Your task to perform on an android device: clear all cookies in the chrome app Image 0: 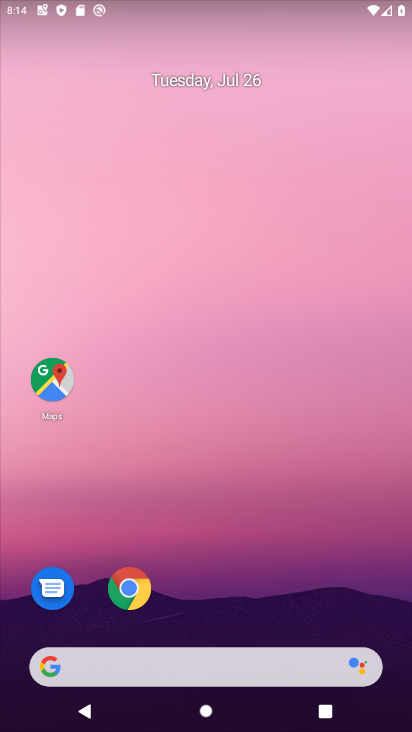
Step 0: click (136, 591)
Your task to perform on an android device: clear all cookies in the chrome app Image 1: 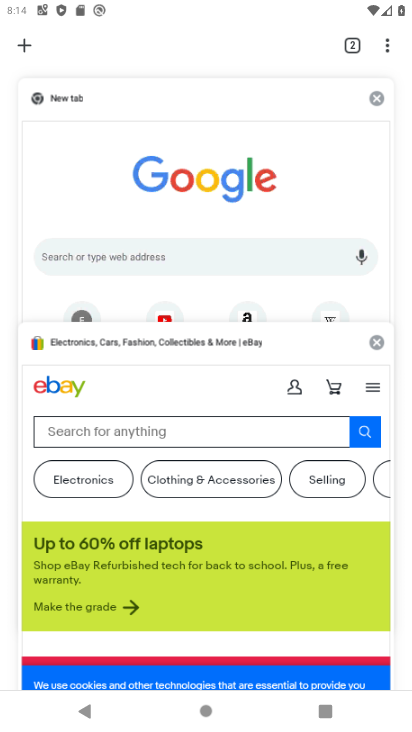
Step 1: click (390, 47)
Your task to perform on an android device: clear all cookies in the chrome app Image 2: 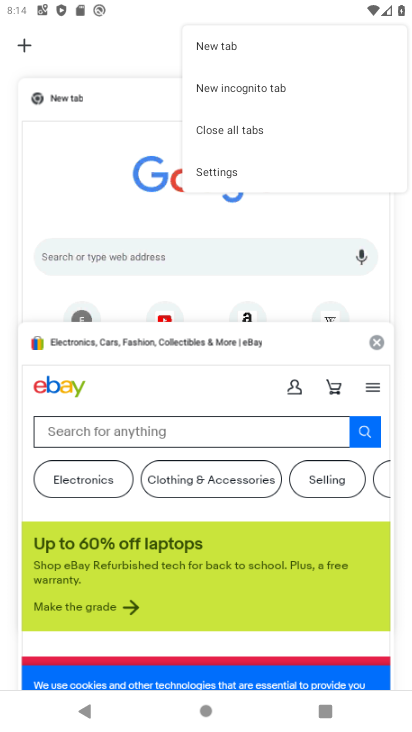
Step 2: click (223, 175)
Your task to perform on an android device: clear all cookies in the chrome app Image 3: 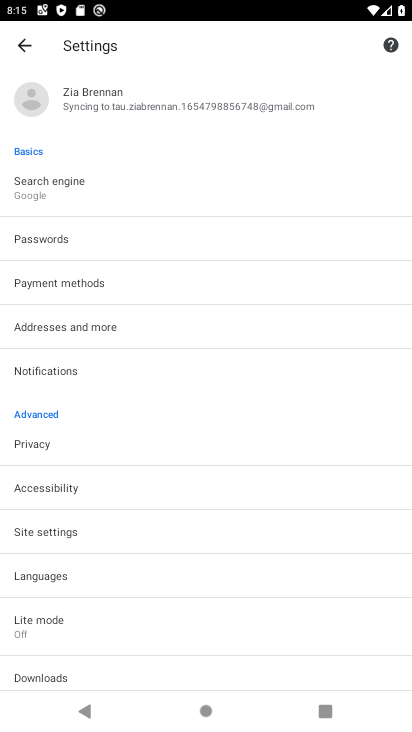
Step 3: click (46, 531)
Your task to perform on an android device: clear all cookies in the chrome app Image 4: 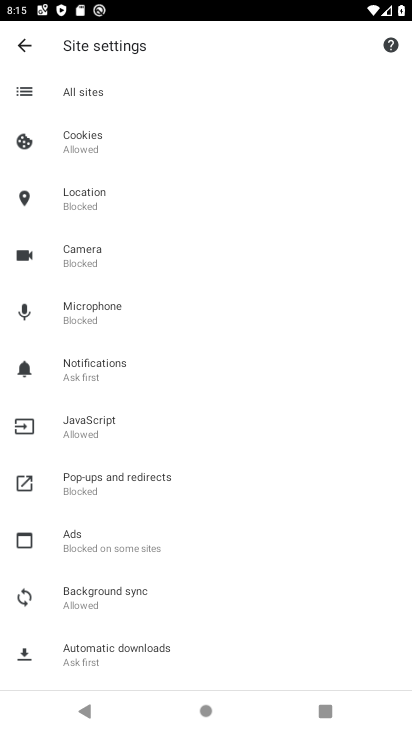
Step 4: click (88, 144)
Your task to perform on an android device: clear all cookies in the chrome app Image 5: 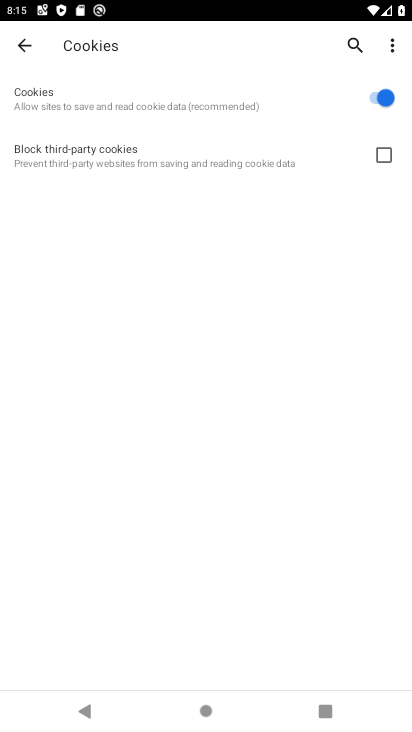
Step 5: click (25, 52)
Your task to perform on an android device: clear all cookies in the chrome app Image 6: 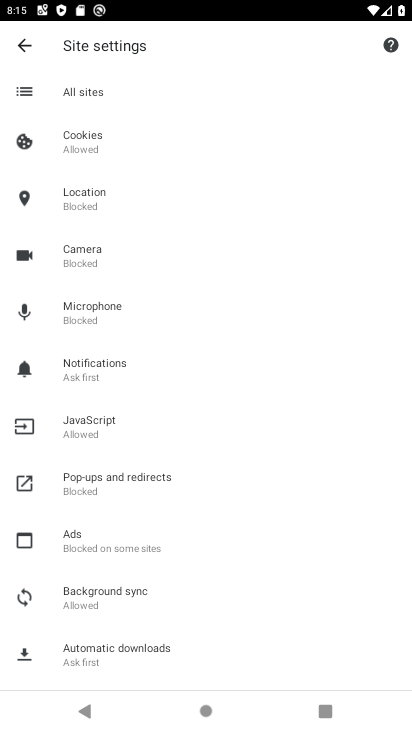
Step 6: click (20, 37)
Your task to perform on an android device: clear all cookies in the chrome app Image 7: 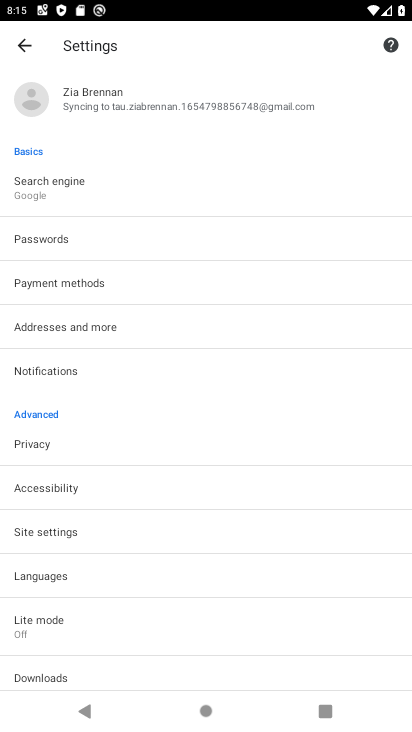
Step 7: click (26, 44)
Your task to perform on an android device: clear all cookies in the chrome app Image 8: 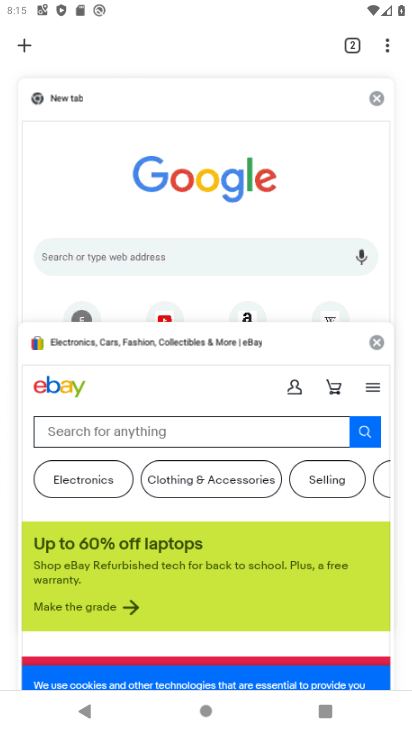
Step 8: click (385, 42)
Your task to perform on an android device: clear all cookies in the chrome app Image 9: 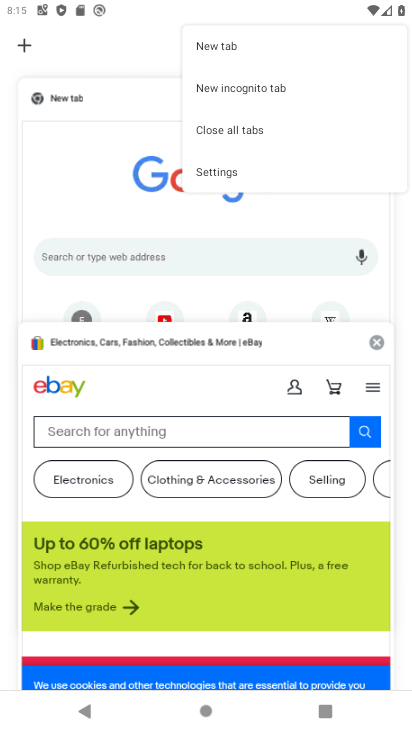
Step 9: click (248, 130)
Your task to perform on an android device: clear all cookies in the chrome app Image 10: 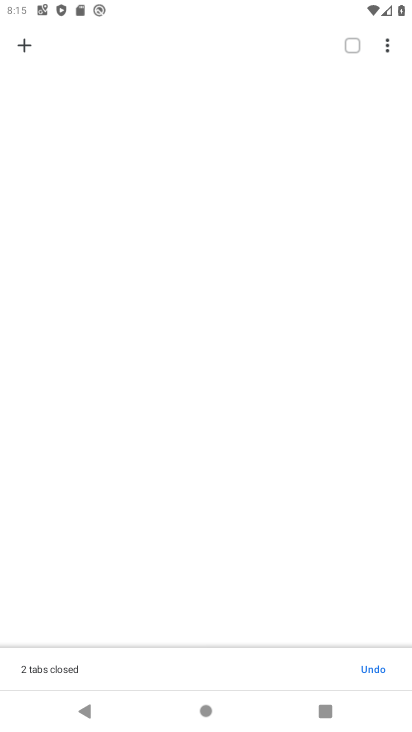
Step 10: click (385, 43)
Your task to perform on an android device: clear all cookies in the chrome app Image 11: 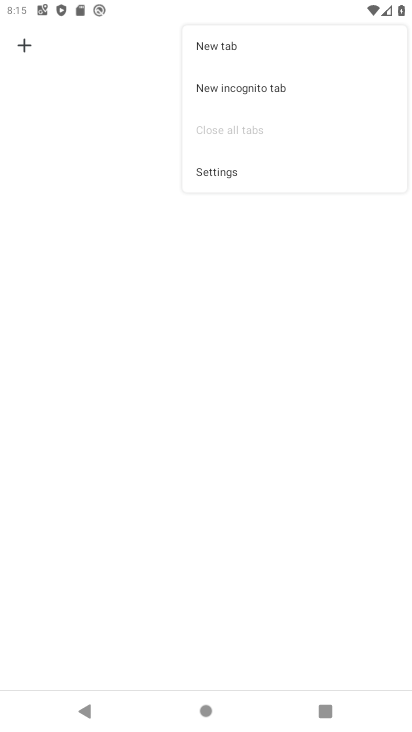
Step 11: click (228, 168)
Your task to perform on an android device: clear all cookies in the chrome app Image 12: 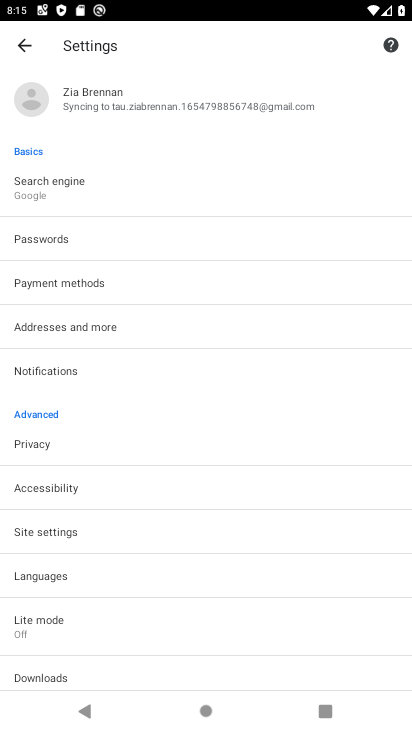
Step 12: drag from (148, 489) to (173, 329)
Your task to perform on an android device: clear all cookies in the chrome app Image 13: 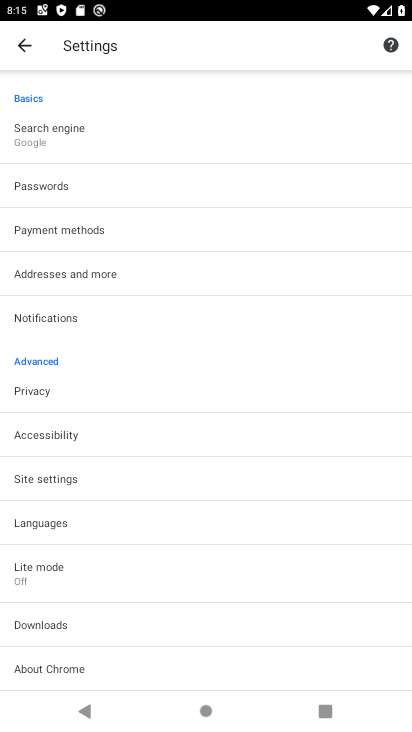
Step 13: drag from (139, 505) to (155, 368)
Your task to perform on an android device: clear all cookies in the chrome app Image 14: 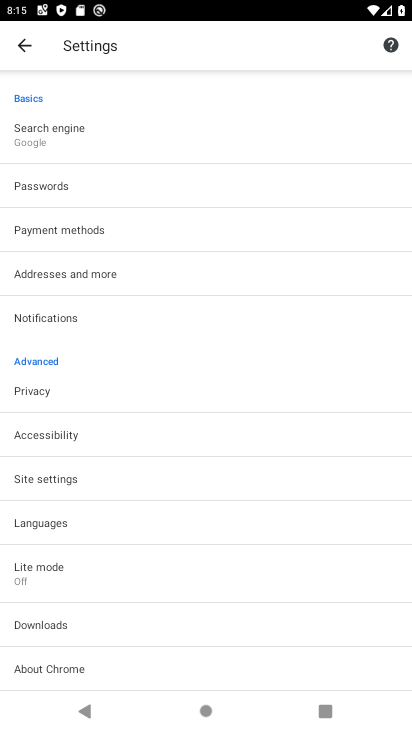
Step 14: click (19, 60)
Your task to perform on an android device: clear all cookies in the chrome app Image 15: 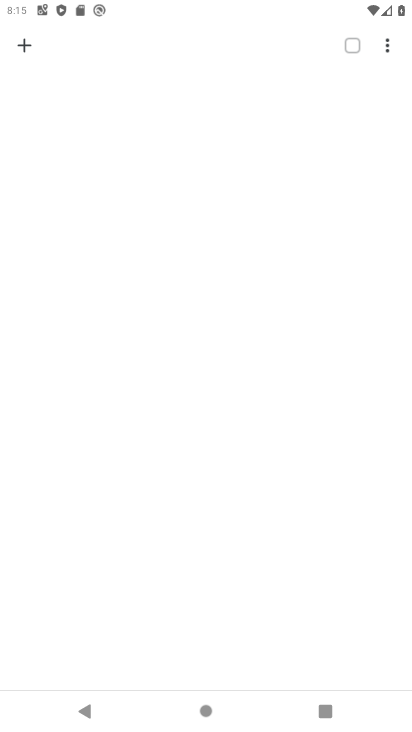
Step 15: click (19, 51)
Your task to perform on an android device: clear all cookies in the chrome app Image 16: 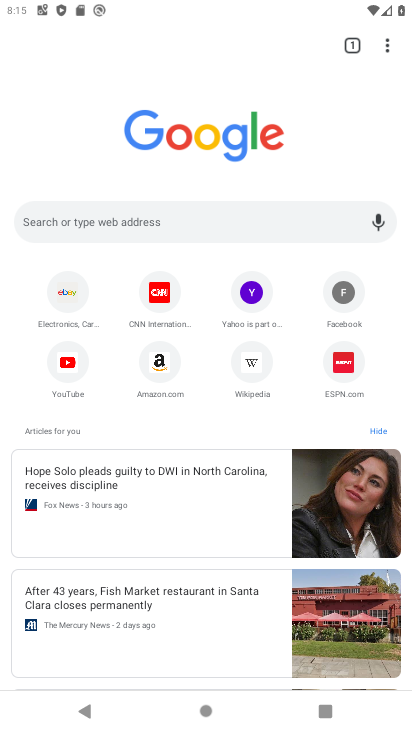
Step 16: click (388, 40)
Your task to perform on an android device: clear all cookies in the chrome app Image 17: 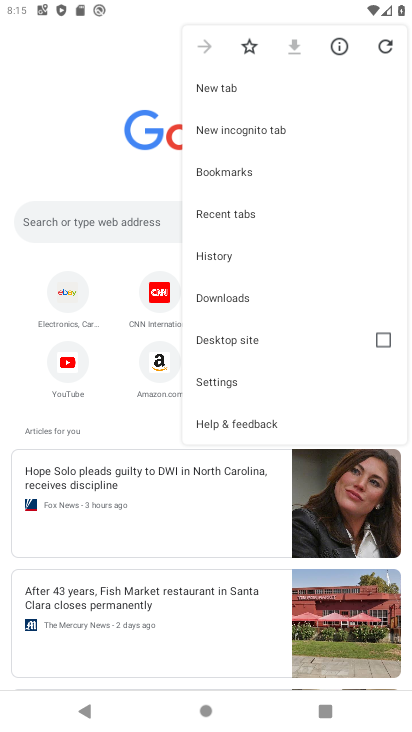
Step 17: click (228, 264)
Your task to perform on an android device: clear all cookies in the chrome app Image 18: 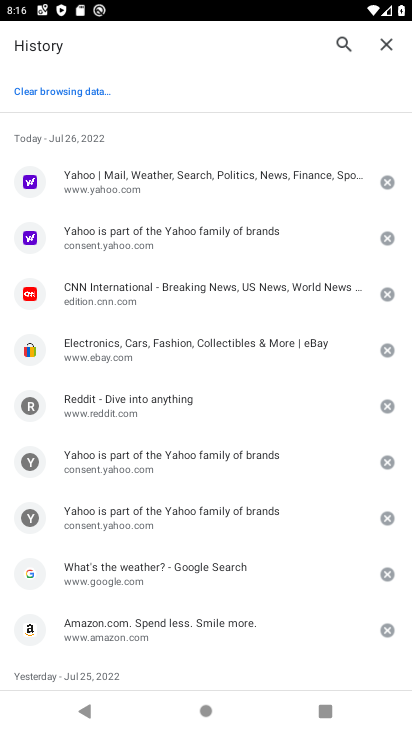
Step 18: click (60, 91)
Your task to perform on an android device: clear all cookies in the chrome app Image 19: 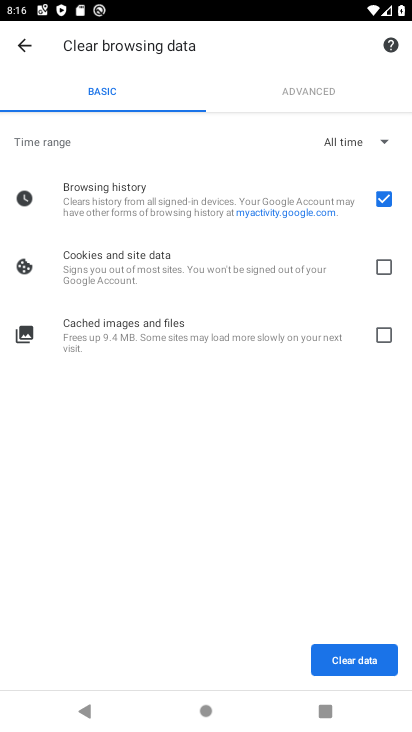
Step 19: click (382, 271)
Your task to perform on an android device: clear all cookies in the chrome app Image 20: 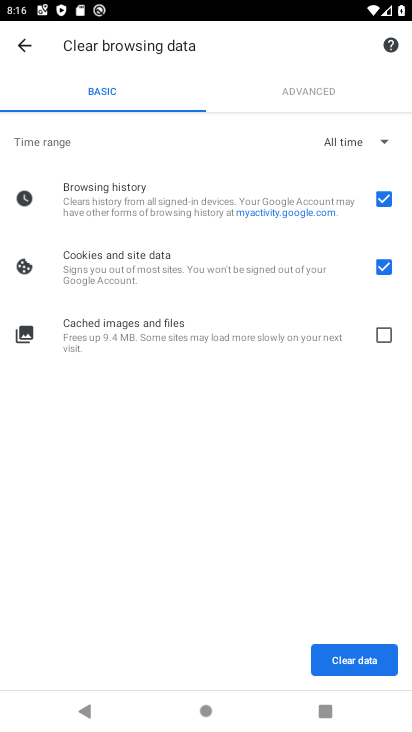
Step 20: click (381, 194)
Your task to perform on an android device: clear all cookies in the chrome app Image 21: 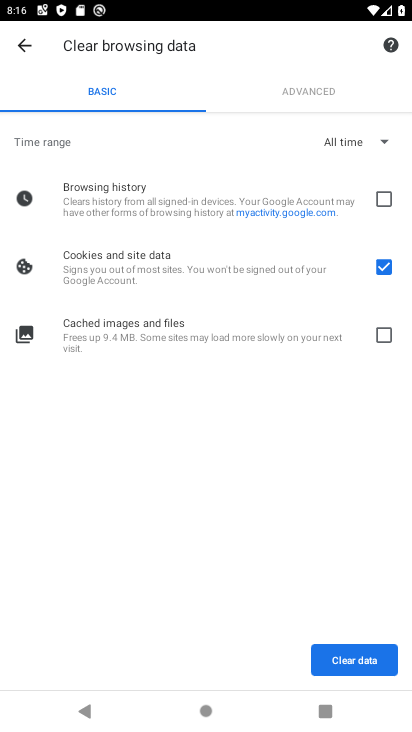
Step 21: click (343, 662)
Your task to perform on an android device: clear all cookies in the chrome app Image 22: 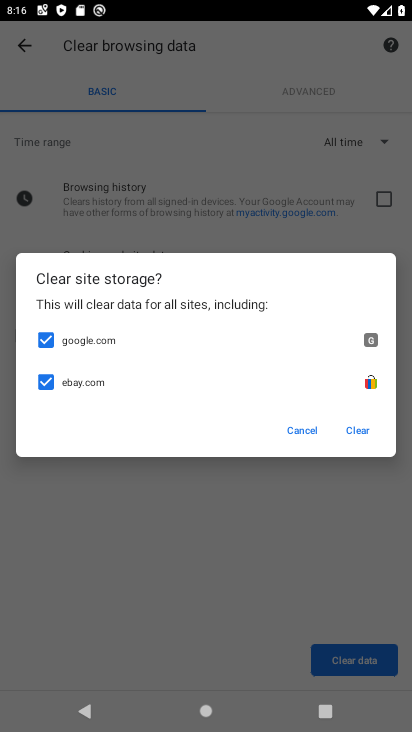
Step 22: click (347, 663)
Your task to perform on an android device: clear all cookies in the chrome app Image 23: 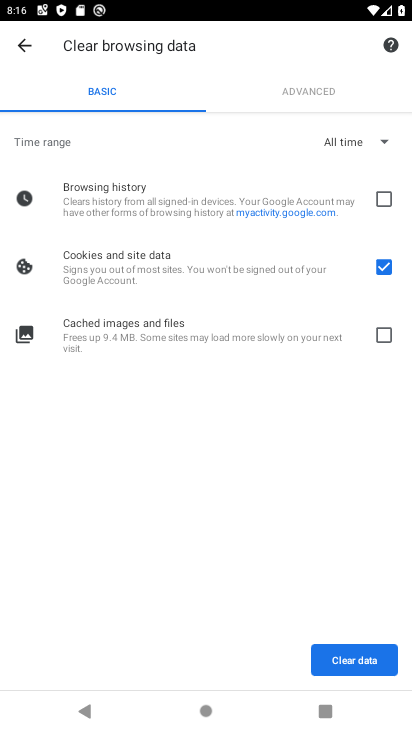
Step 23: click (342, 654)
Your task to perform on an android device: clear all cookies in the chrome app Image 24: 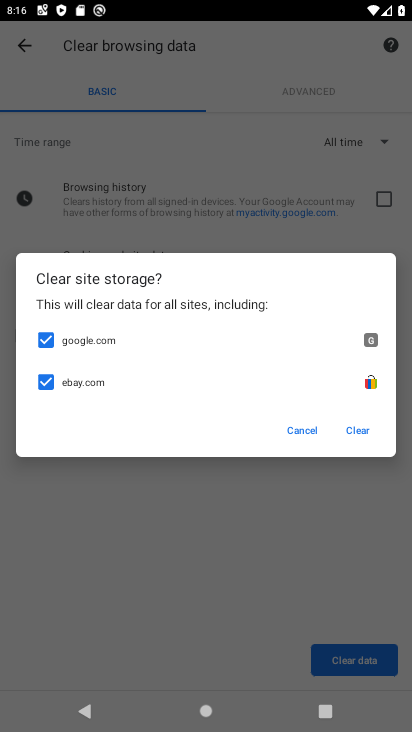
Step 24: click (362, 429)
Your task to perform on an android device: clear all cookies in the chrome app Image 25: 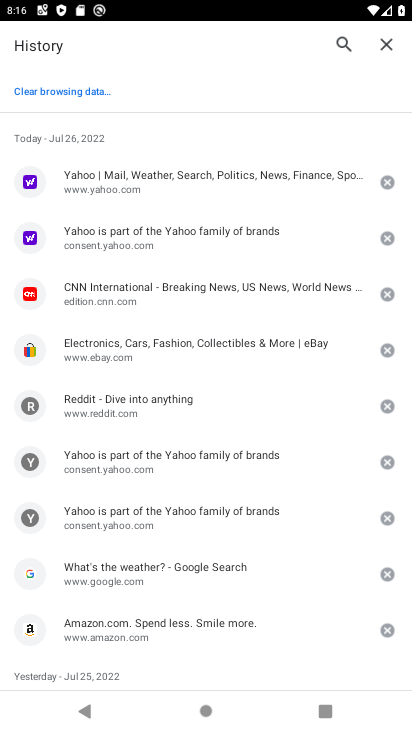
Step 25: task complete